Your task to perform on an android device: open wifi settings Image 0: 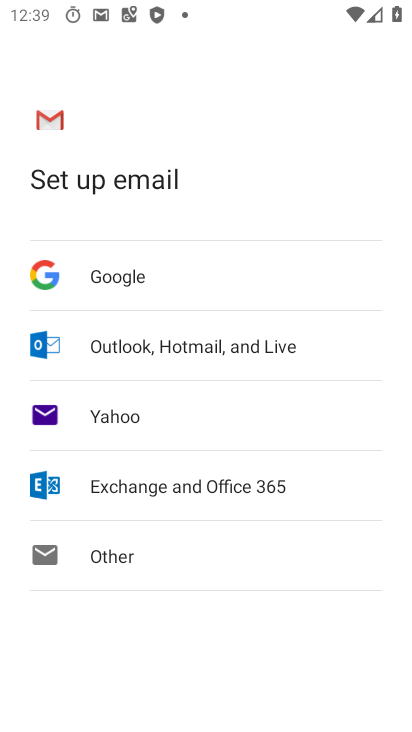
Step 0: press home button
Your task to perform on an android device: open wifi settings Image 1: 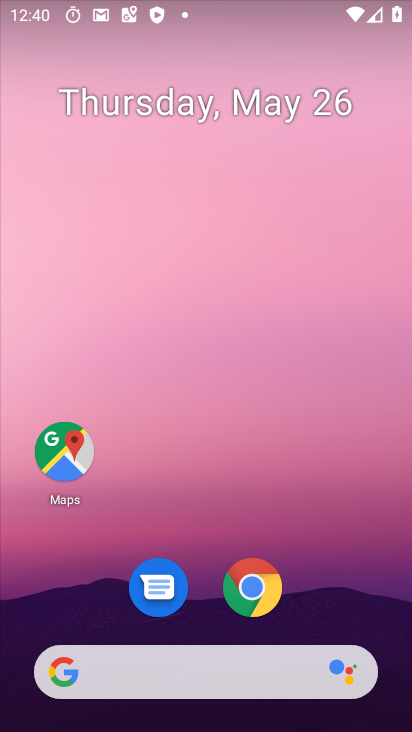
Step 1: drag from (279, 704) to (305, 34)
Your task to perform on an android device: open wifi settings Image 2: 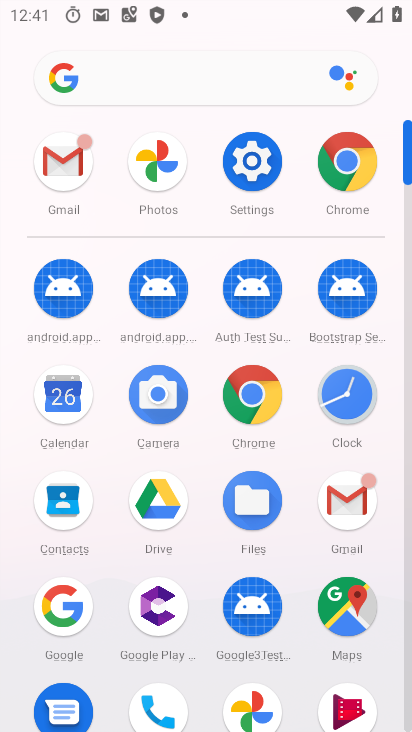
Step 2: click (259, 183)
Your task to perform on an android device: open wifi settings Image 3: 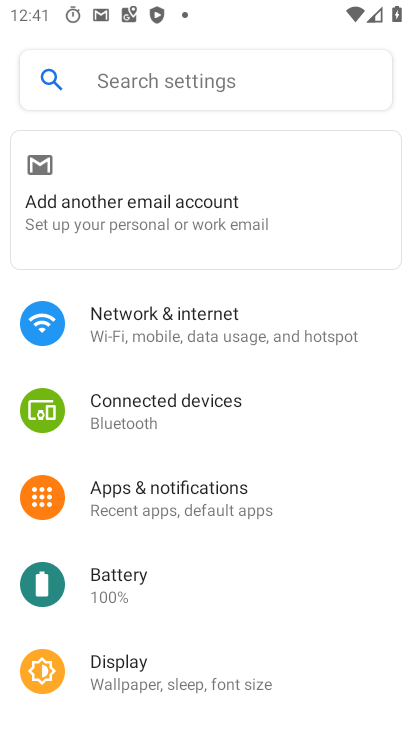
Step 3: click (217, 167)
Your task to perform on an android device: open wifi settings Image 4: 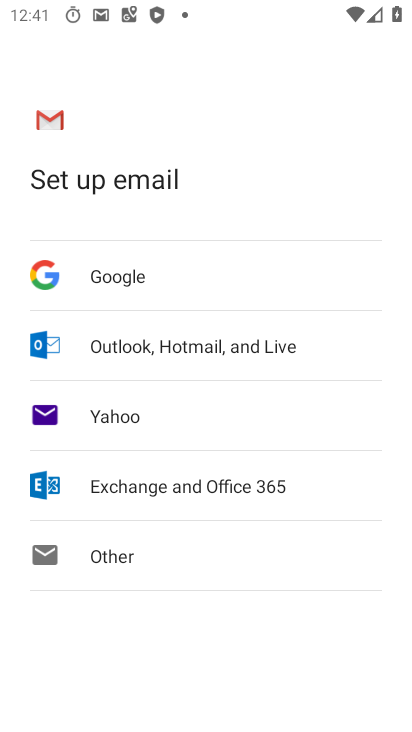
Step 4: press back button
Your task to perform on an android device: open wifi settings Image 5: 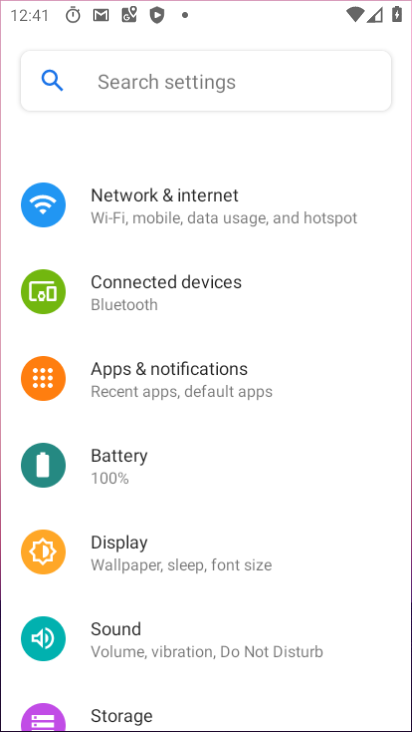
Step 5: press home button
Your task to perform on an android device: open wifi settings Image 6: 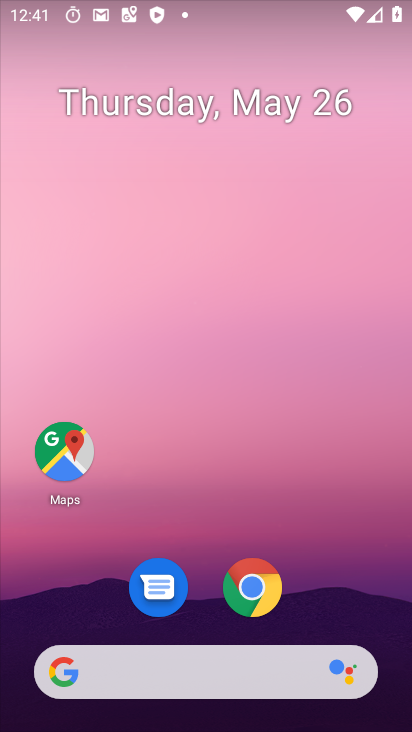
Step 6: drag from (264, 631) to (197, 164)
Your task to perform on an android device: open wifi settings Image 7: 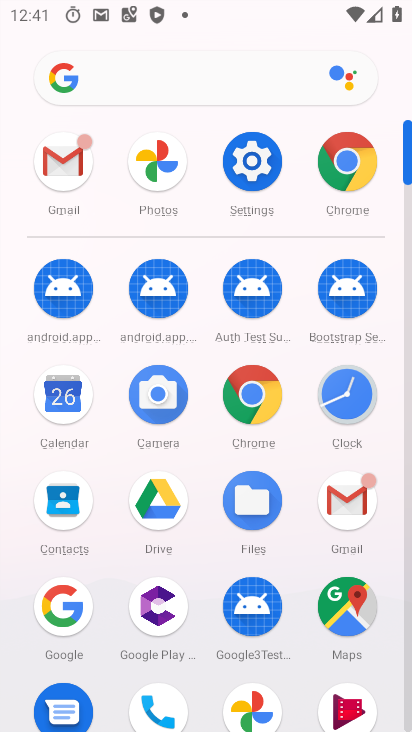
Step 7: click (242, 145)
Your task to perform on an android device: open wifi settings Image 8: 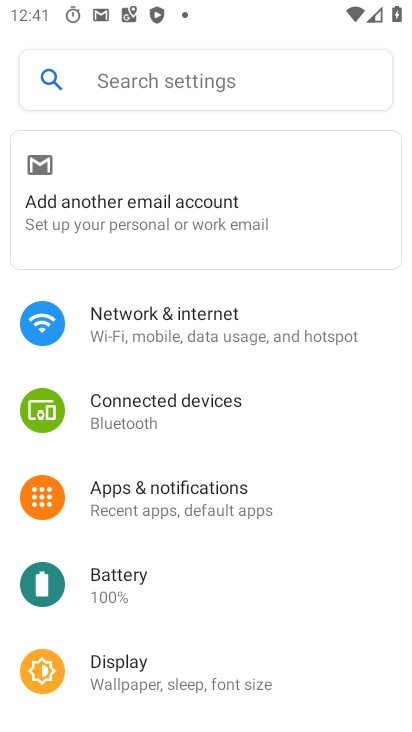
Step 8: click (184, 314)
Your task to perform on an android device: open wifi settings Image 9: 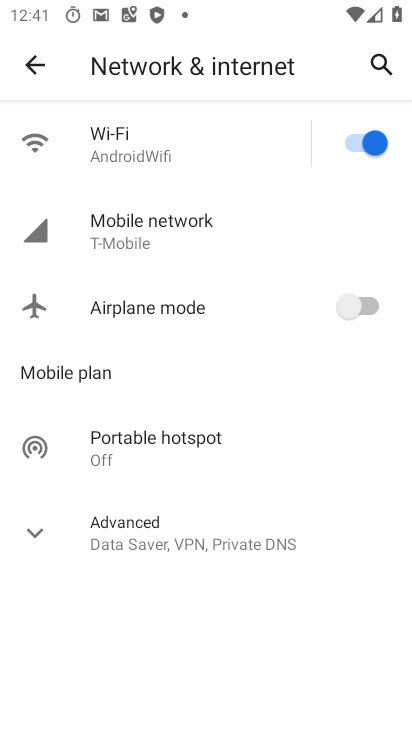
Step 9: click (180, 130)
Your task to perform on an android device: open wifi settings Image 10: 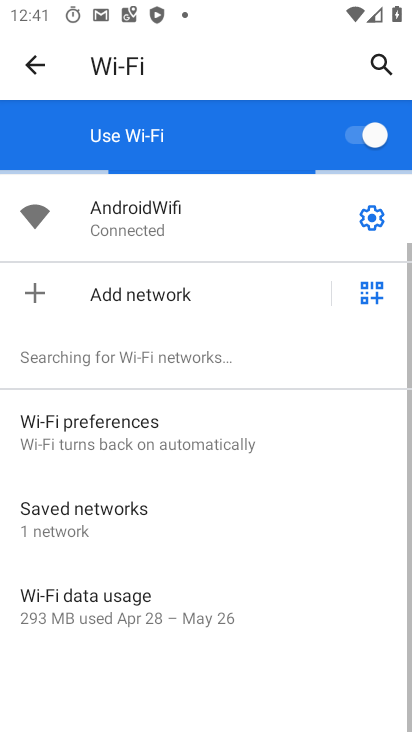
Step 10: task complete